Your task to perform on an android device: Search for Mexican restaurants on Maps Image 0: 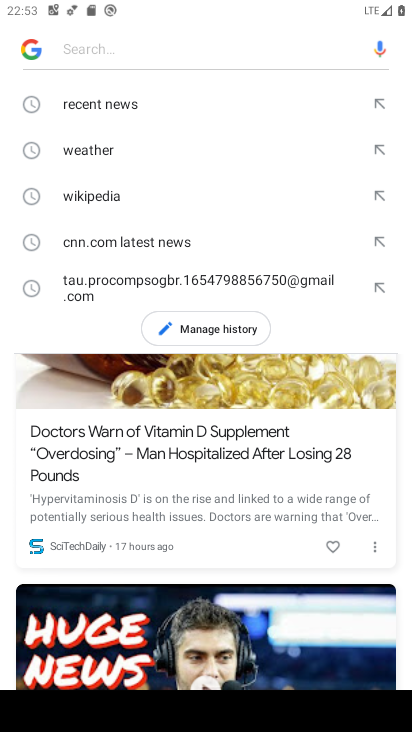
Step 0: drag from (198, 540) to (210, 152)
Your task to perform on an android device: Search for Mexican restaurants on Maps Image 1: 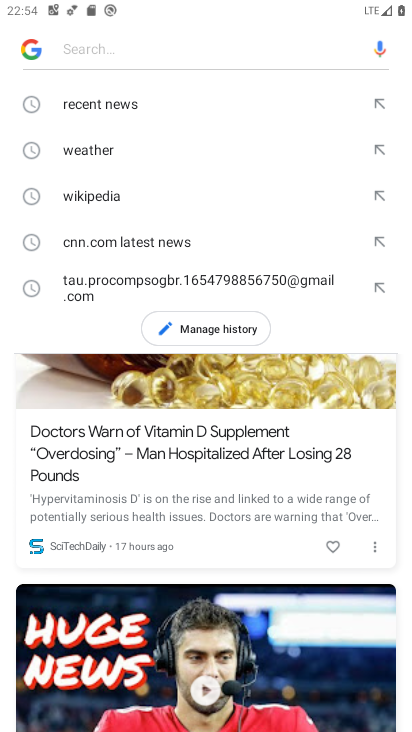
Step 1: press home button
Your task to perform on an android device: Search for Mexican restaurants on Maps Image 2: 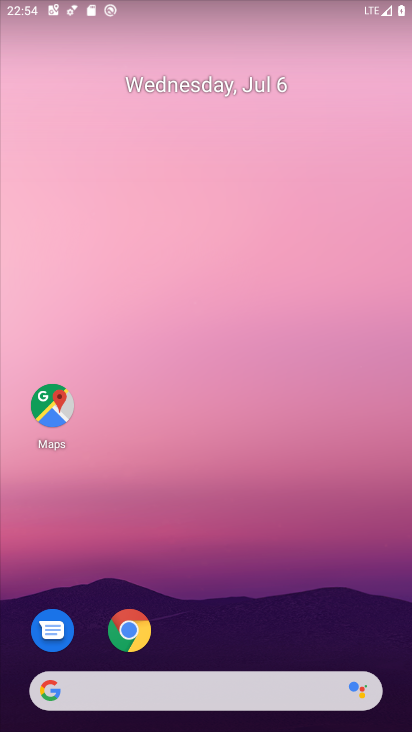
Step 2: drag from (191, 616) to (238, 218)
Your task to perform on an android device: Search for Mexican restaurants on Maps Image 3: 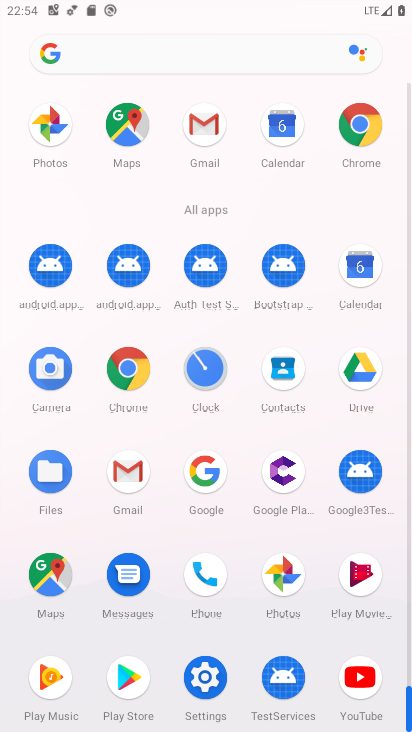
Step 3: click (48, 574)
Your task to perform on an android device: Search for Mexican restaurants on Maps Image 4: 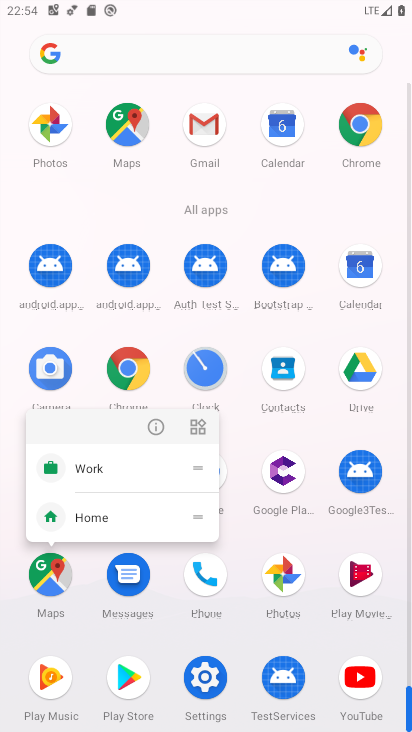
Step 4: click (155, 422)
Your task to perform on an android device: Search for Mexican restaurants on Maps Image 5: 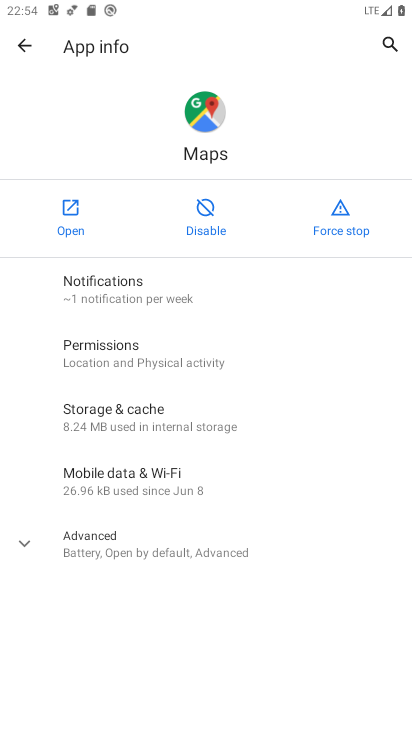
Step 5: click (65, 213)
Your task to perform on an android device: Search for Mexican restaurants on Maps Image 6: 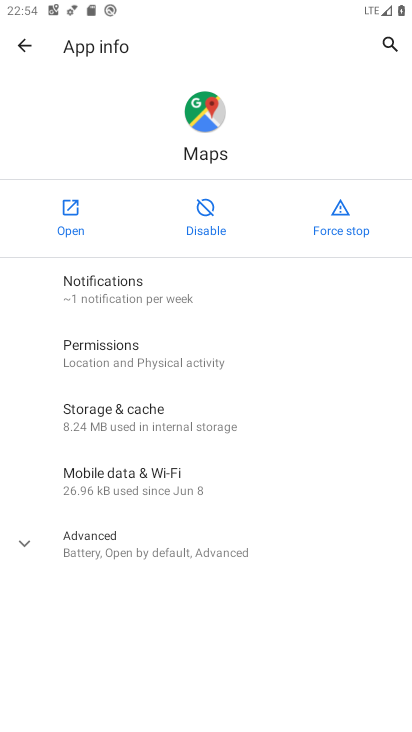
Step 6: click (66, 213)
Your task to perform on an android device: Search for Mexican restaurants on Maps Image 7: 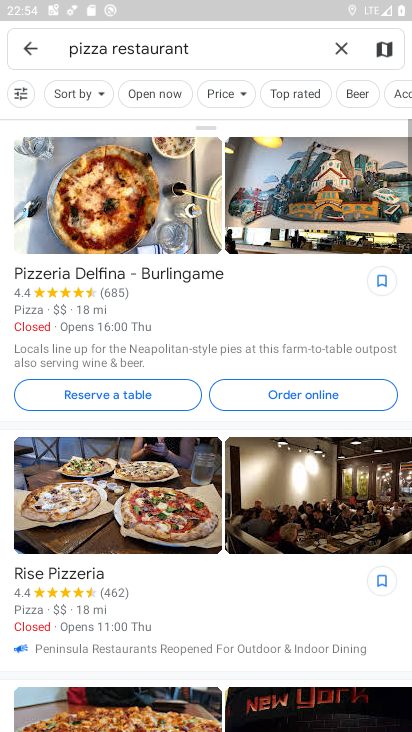
Step 7: click (337, 48)
Your task to perform on an android device: Search for Mexican restaurants on Maps Image 8: 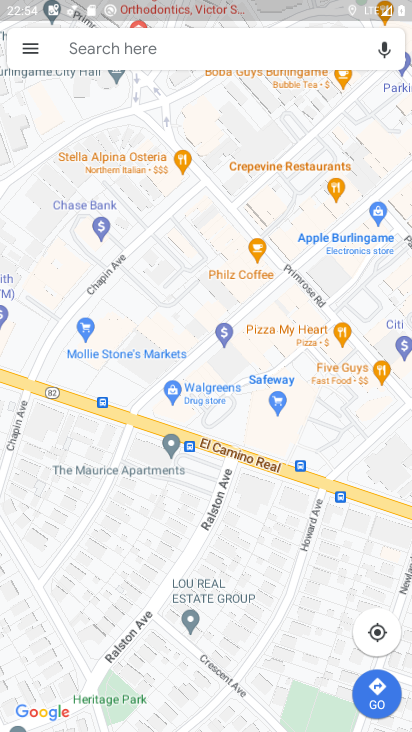
Step 8: click (141, 56)
Your task to perform on an android device: Search for Mexican restaurants on Maps Image 9: 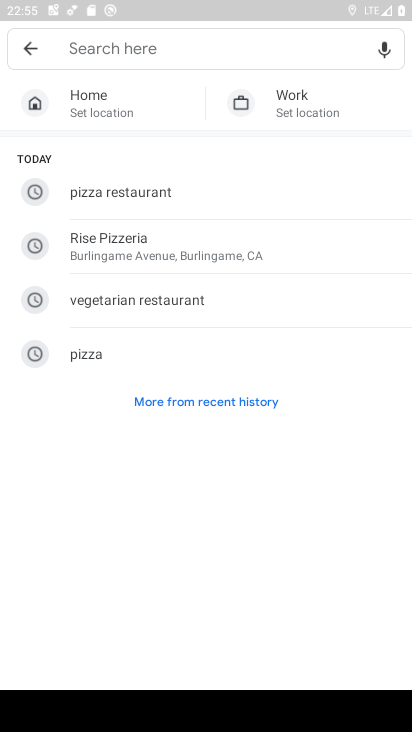
Step 9: click (12, 39)
Your task to perform on an android device: Search for Mexican restaurants on Maps Image 10: 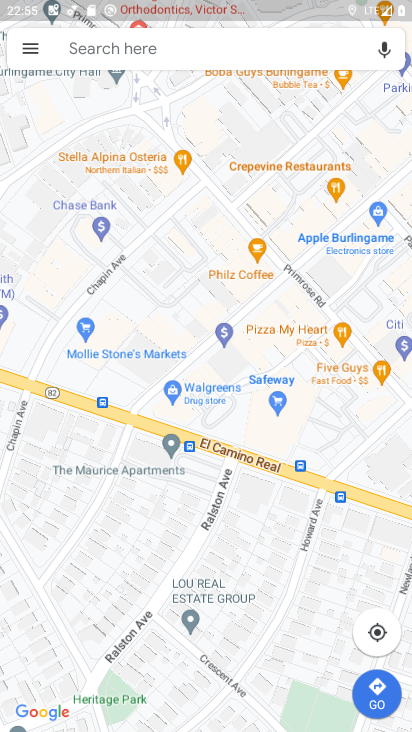
Step 10: click (237, 50)
Your task to perform on an android device: Search for Mexican restaurants on Maps Image 11: 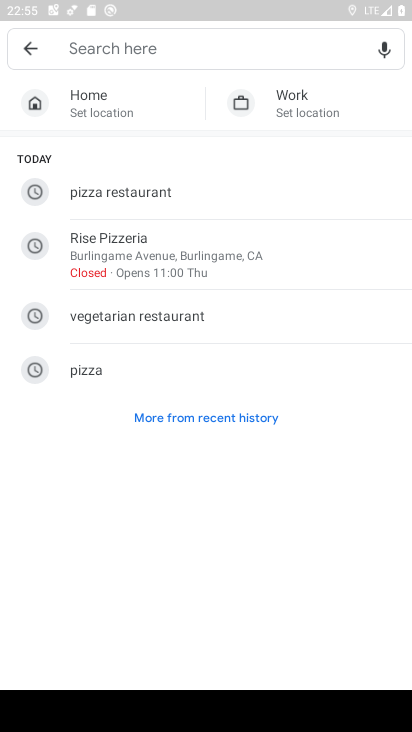
Step 11: type "Mexican restaurants"
Your task to perform on an android device: Search for Mexican restaurants on Maps Image 12: 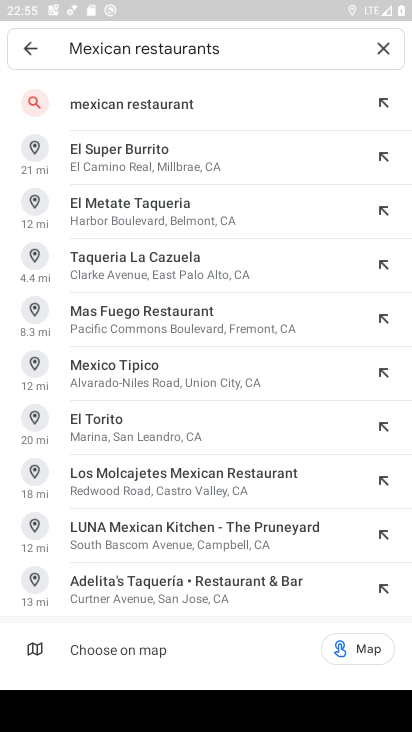
Step 12: click (148, 104)
Your task to perform on an android device: Search for Mexican restaurants on Maps Image 13: 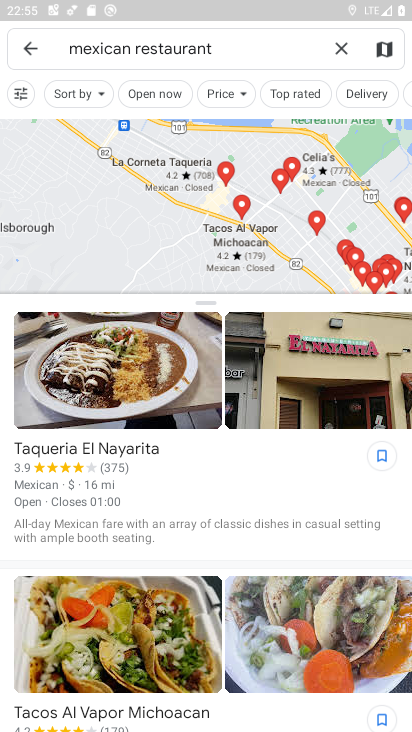
Step 13: drag from (203, 576) to (274, 183)
Your task to perform on an android device: Search for Mexican restaurants on Maps Image 14: 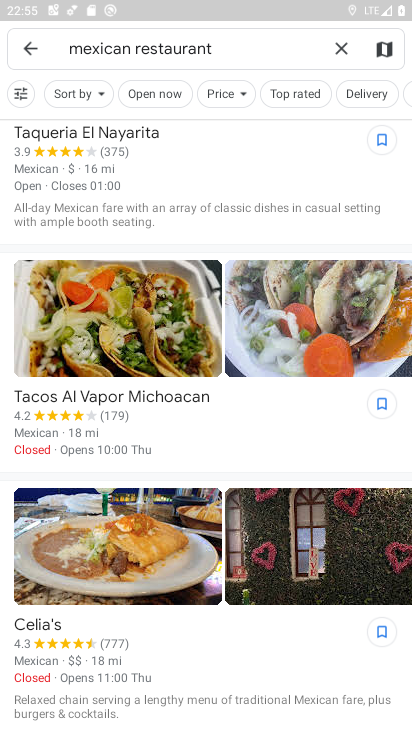
Step 14: drag from (269, 517) to (310, 360)
Your task to perform on an android device: Search for Mexican restaurants on Maps Image 15: 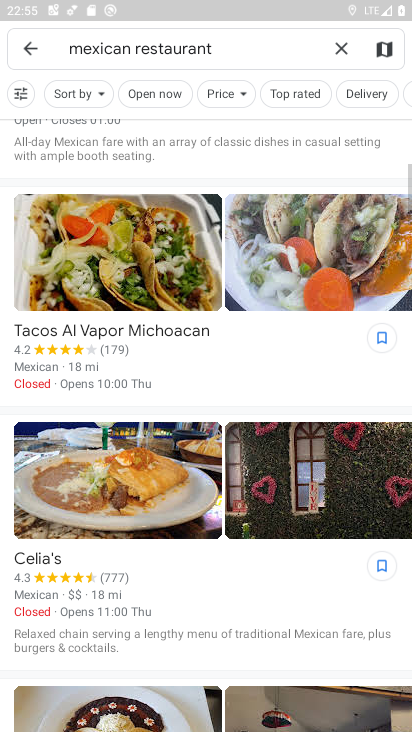
Step 15: drag from (220, 566) to (263, 377)
Your task to perform on an android device: Search for Mexican restaurants on Maps Image 16: 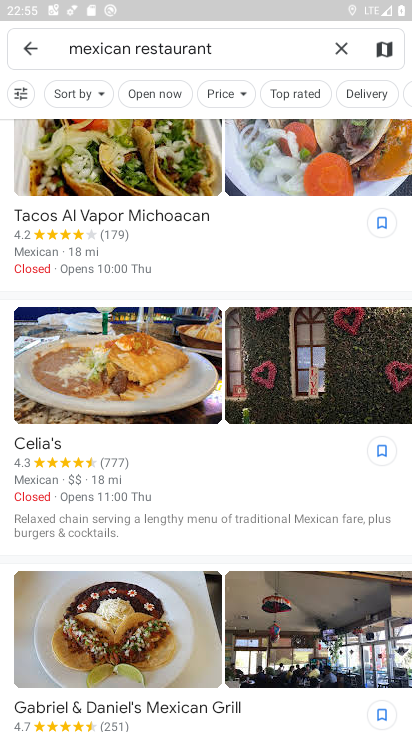
Step 16: drag from (217, 546) to (225, 400)
Your task to perform on an android device: Search for Mexican restaurants on Maps Image 17: 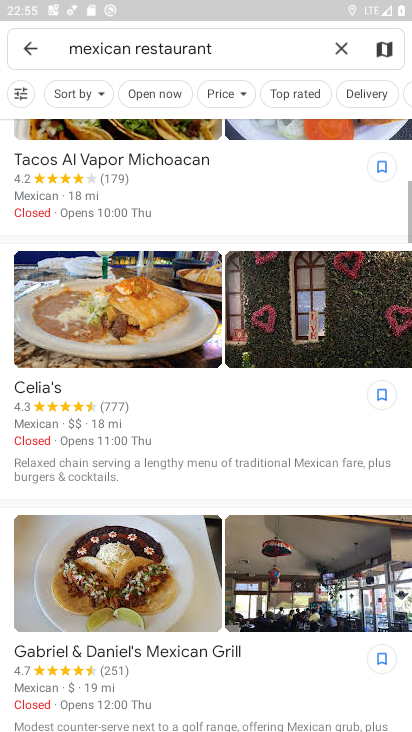
Step 17: drag from (267, 259) to (250, 695)
Your task to perform on an android device: Search for Mexican restaurants on Maps Image 18: 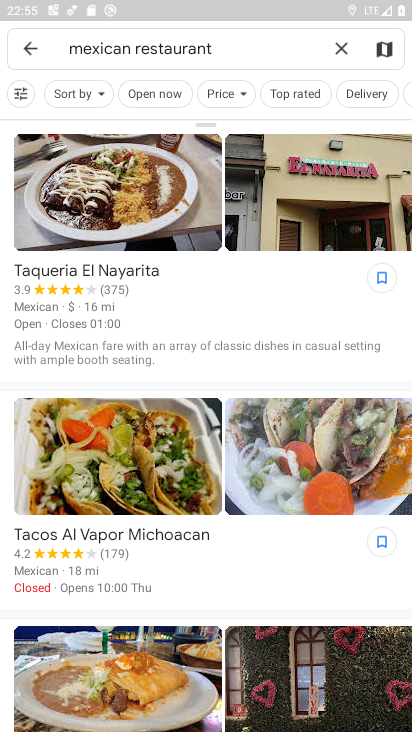
Step 18: click (340, 45)
Your task to perform on an android device: Search for Mexican restaurants on Maps Image 19: 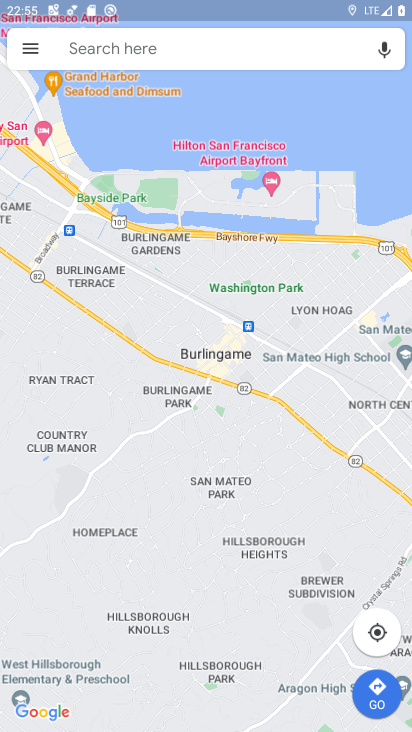
Step 19: task complete